Your task to perform on an android device: Check the news Image 0: 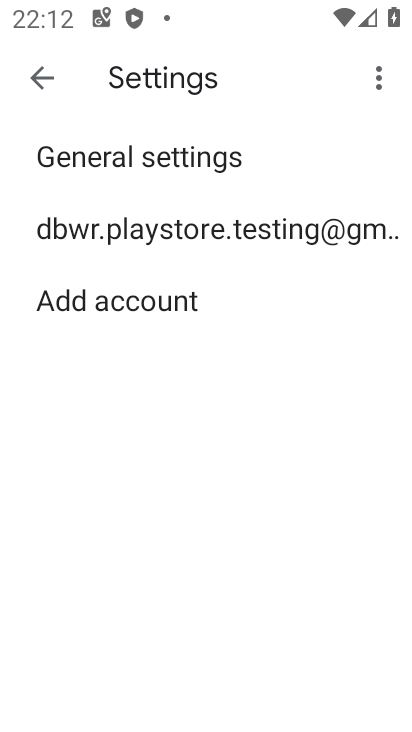
Step 0: press home button
Your task to perform on an android device: Check the news Image 1: 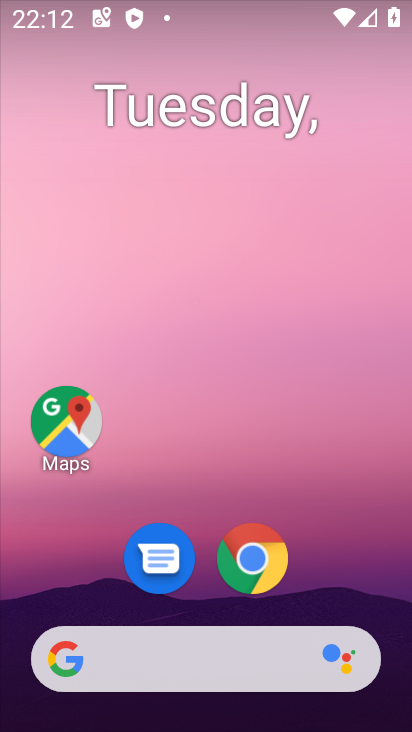
Step 1: click (189, 646)
Your task to perform on an android device: Check the news Image 2: 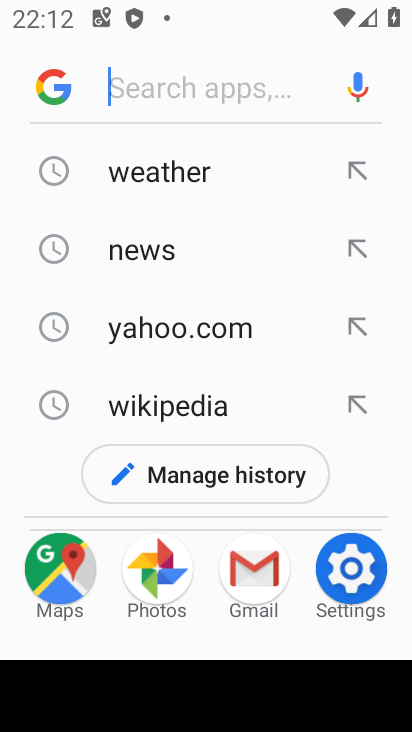
Step 2: type "news"
Your task to perform on an android device: Check the news Image 3: 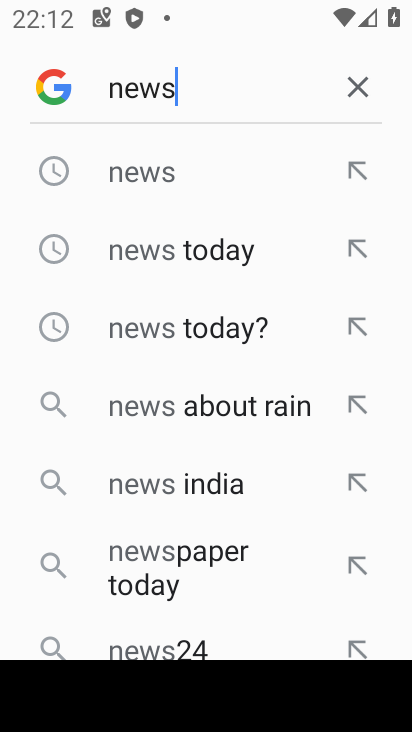
Step 3: click (193, 186)
Your task to perform on an android device: Check the news Image 4: 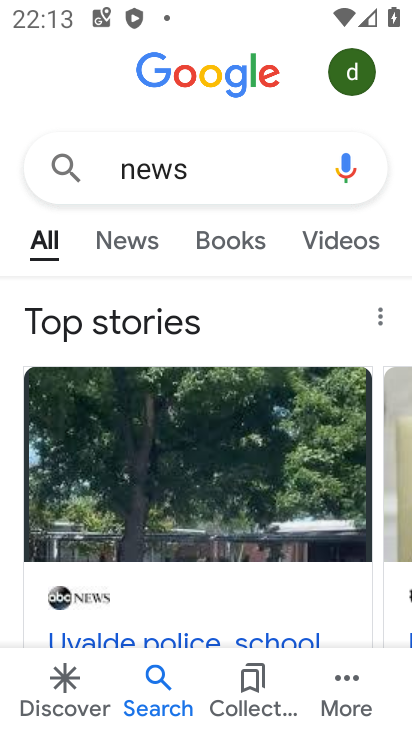
Step 4: click (137, 248)
Your task to perform on an android device: Check the news Image 5: 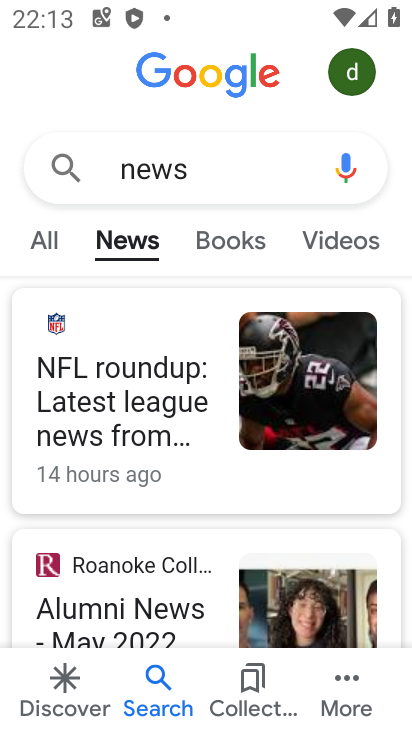
Step 5: task complete